Your task to perform on an android device: turn on wifi Image 0: 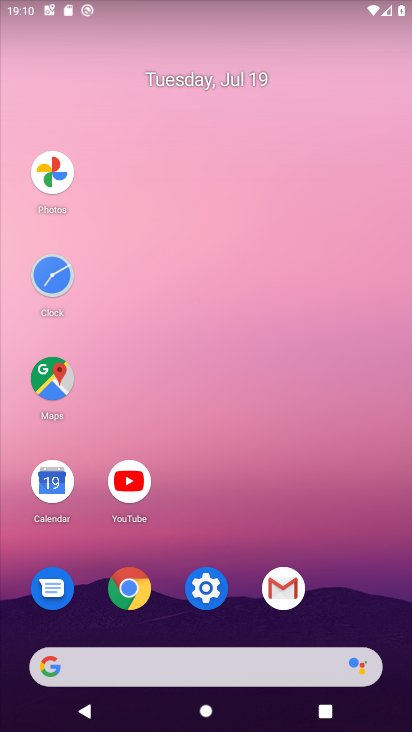
Step 0: click (204, 592)
Your task to perform on an android device: turn on wifi Image 1: 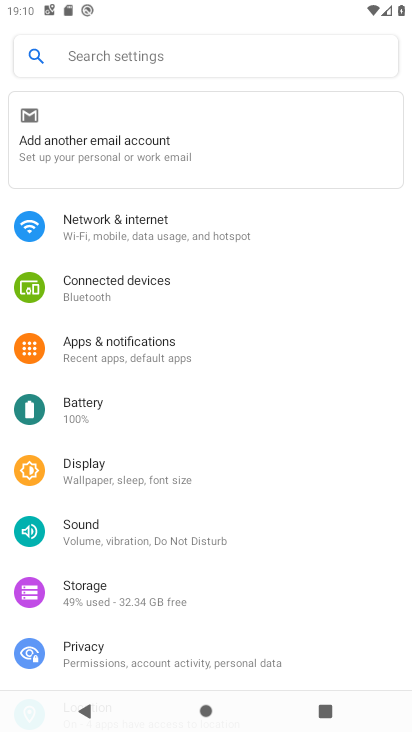
Step 1: click (124, 220)
Your task to perform on an android device: turn on wifi Image 2: 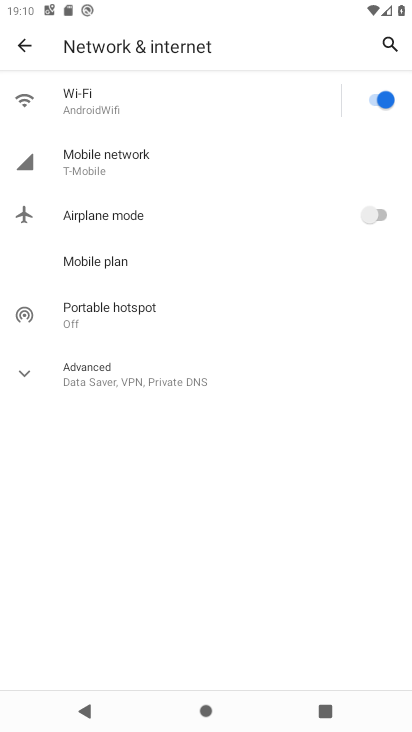
Step 2: task complete